Your task to perform on an android device: turn on priority inbox in the gmail app Image 0: 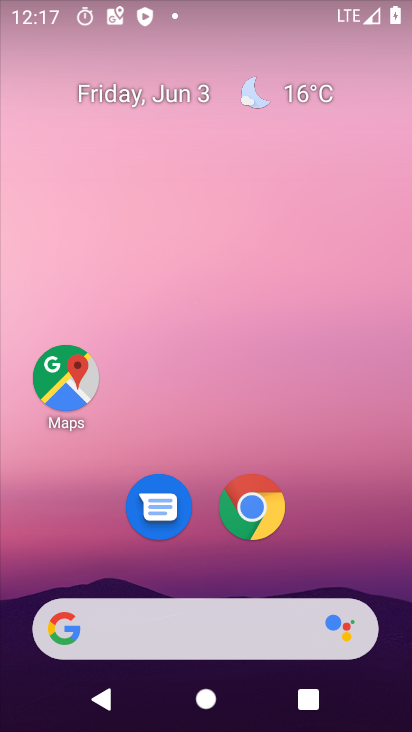
Step 0: drag from (384, 602) to (199, 31)
Your task to perform on an android device: turn on priority inbox in the gmail app Image 1: 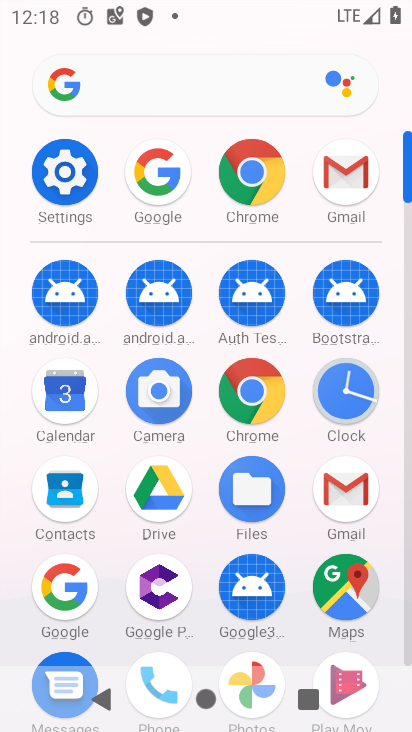
Step 1: click (364, 471)
Your task to perform on an android device: turn on priority inbox in the gmail app Image 2: 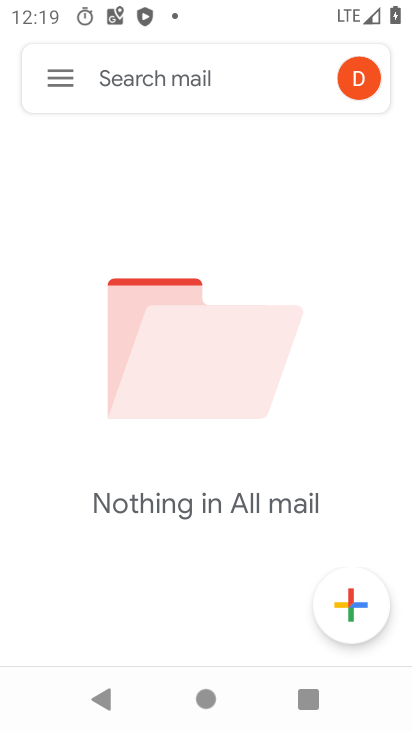
Step 2: click (74, 56)
Your task to perform on an android device: turn on priority inbox in the gmail app Image 3: 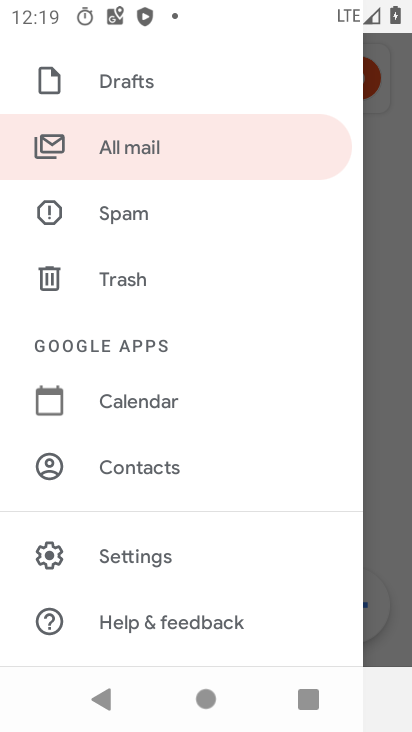
Step 3: click (134, 558)
Your task to perform on an android device: turn on priority inbox in the gmail app Image 4: 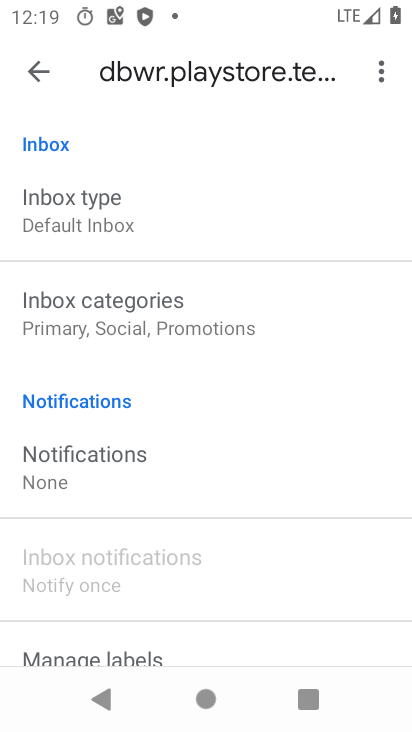
Step 4: click (193, 236)
Your task to perform on an android device: turn on priority inbox in the gmail app Image 5: 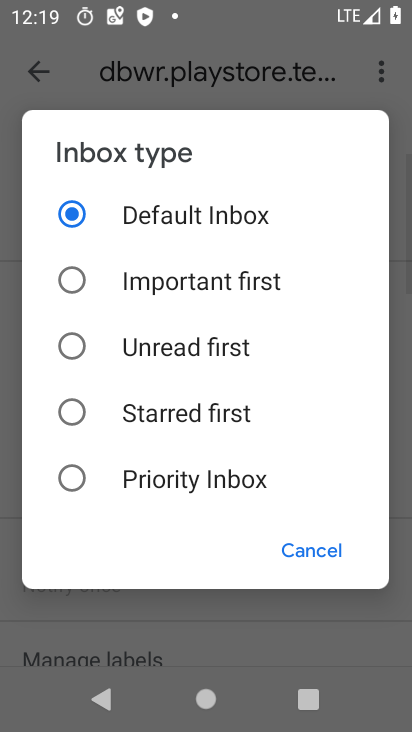
Step 5: click (76, 485)
Your task to perform on an android device: turn on priority inbox in the gmail app Image 6: 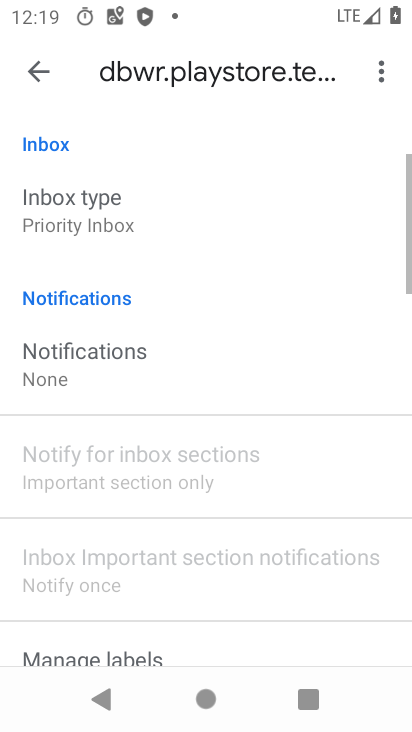
Step 6: task complete